Your task to perform on an android device: Go to Yahoo.com Image 0: 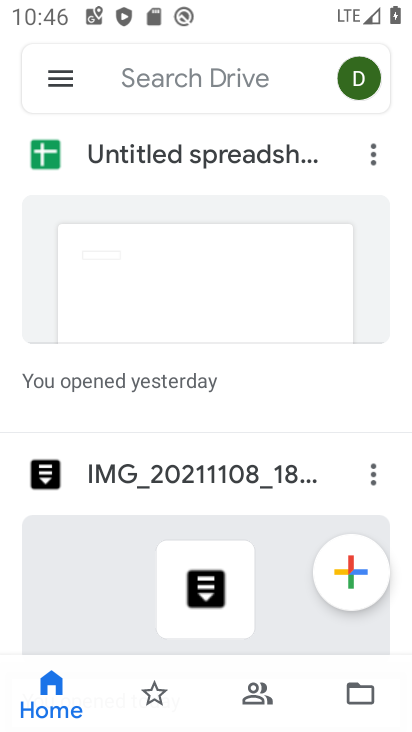
Step 0: press home button
Your task to perform on an android device: Go to Yahoo.com Image 1: 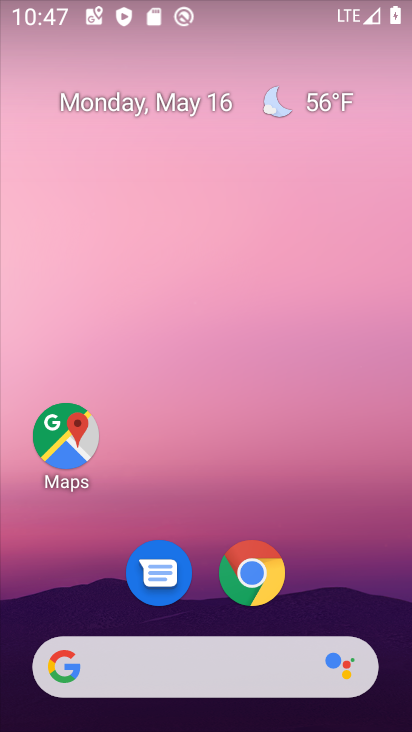
Step 1: click (220, 677)
Your task to perform on an android device: Go to Yahoo.com Image 2: 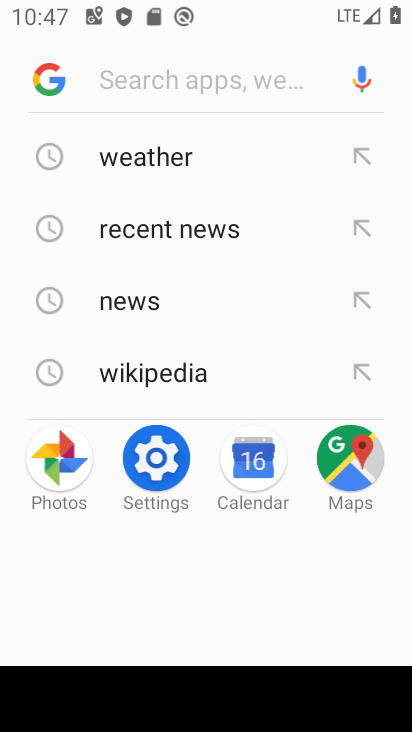
Step 2: type "yahoo.com"
Your task to perform on an android device: Go to Yahoo.com Image 3: 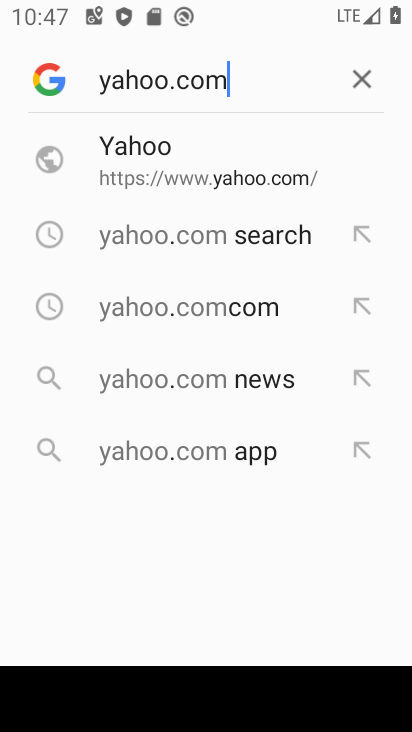
Step 3: click (234, 154)
Your task to perform on an android device: Go to Yahoo.com Image 4: 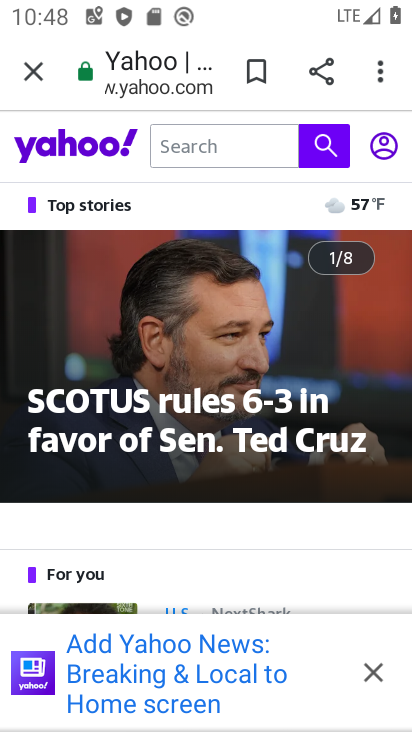
Step 4: task complete